Your task to perform on an android device: Is it going to rain today? Image 0: 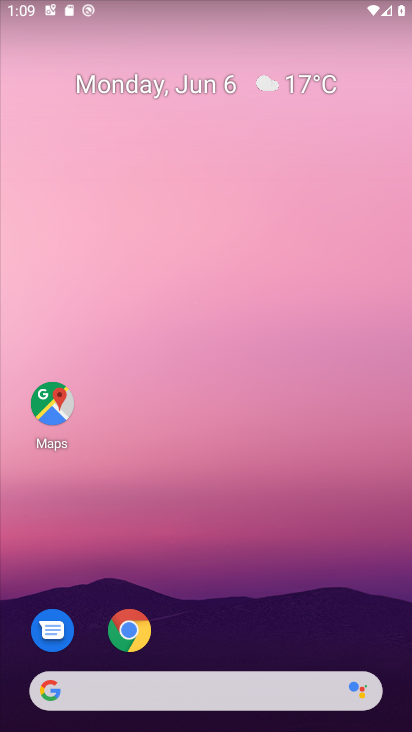
Step 0: click (149, 696)
Your task to perform on an android device: Is it going to rain today? Image 1: 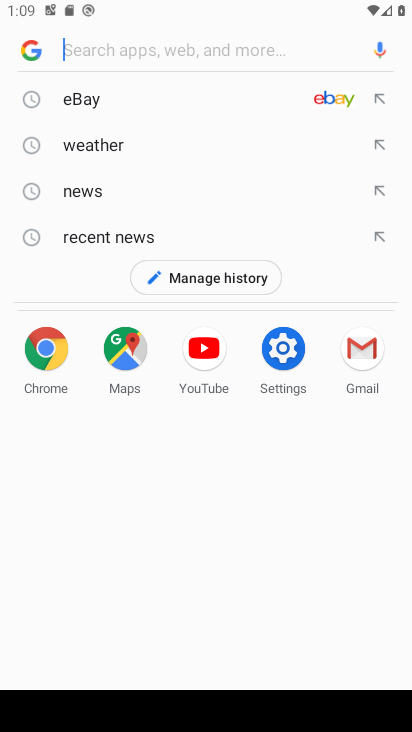
Step 1: click (115, 147)
Your task to perform on an android device: Is it going to rain today? Image 2: 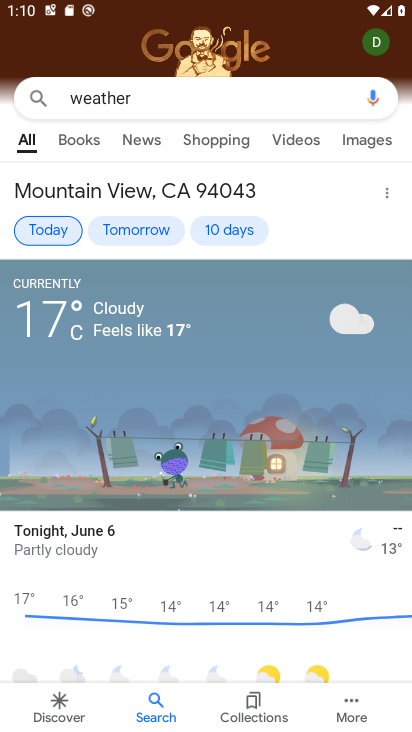
Step 2: task complete